Your task to perform on an android device: Open the calendar app, open the side menu, and click the "Day" option Image 0: 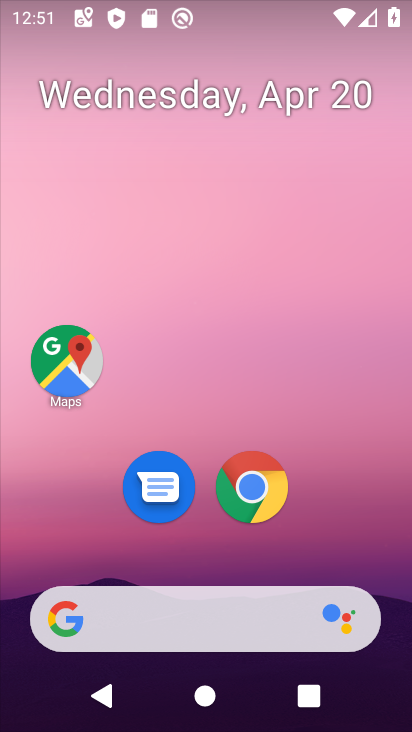
Step 0: drag from (368, 563) to (286, 100)
Your task to perform on an android device: Open the calendar app, open the side menu, and click the "Day" option Image 1: 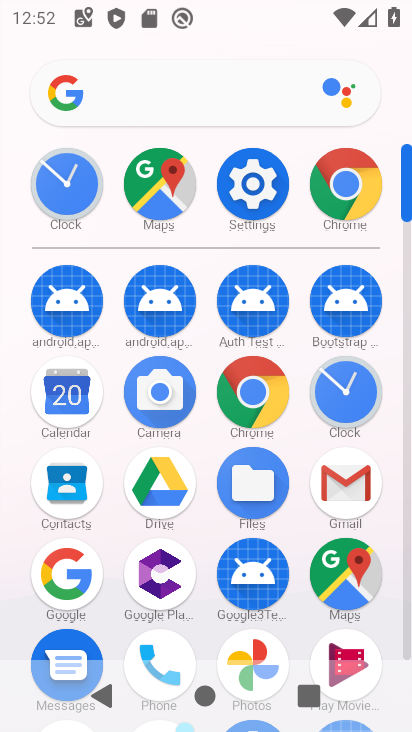
Step 1: click (67, 414)
Your task to perform on an android device: Open the calendar app, open the side menu, and click the "Day" option Image 2: 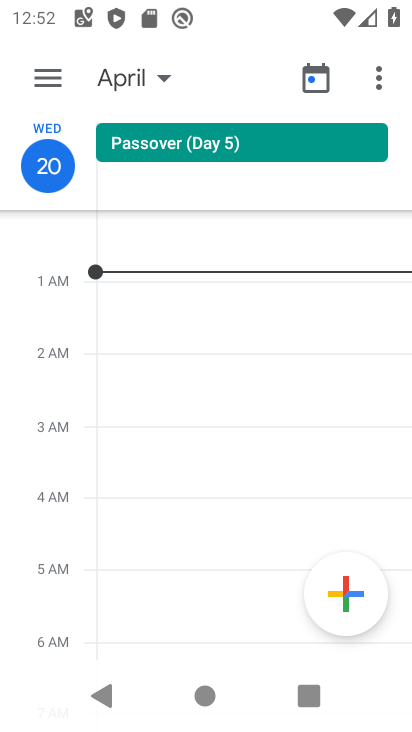
Step 2: click (46, 82)
Your task to perform on an android device: Open the calendar app, open the side menu, and click the "Day" option Image 3: 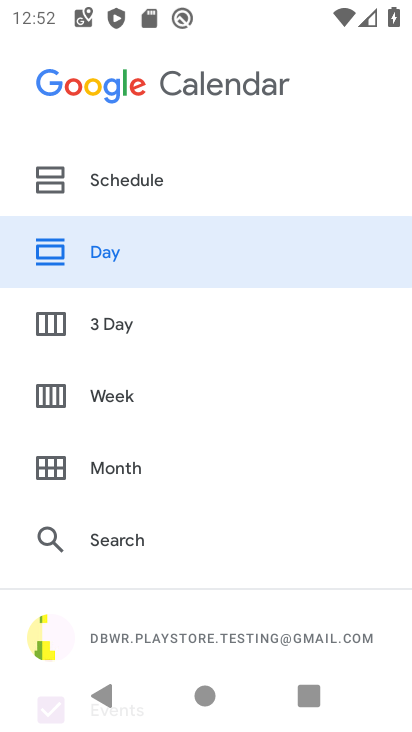
Step 3: click (138, 250)
Your task to perform on an android device: Open the calendar app, open the side menu, and click the "Day" option Image 4: 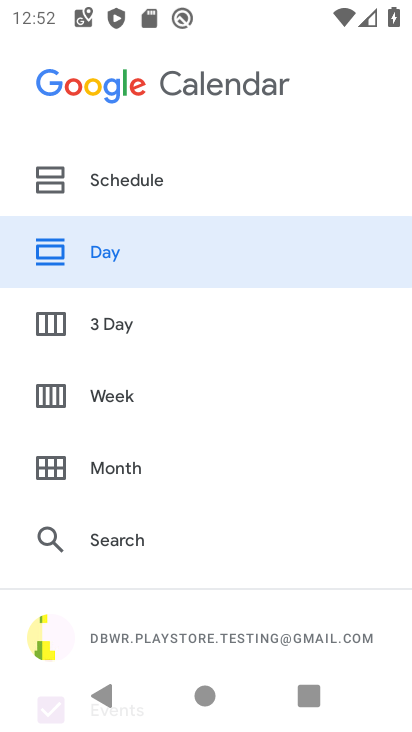
Step 4: task complete